Your task to perform on an android device: Open the web browser Image 0: 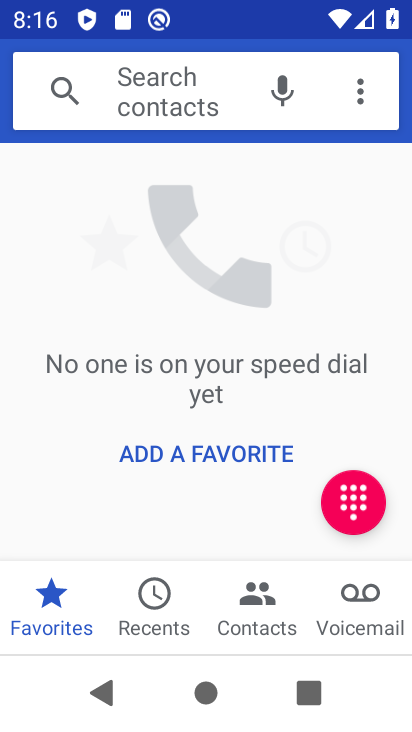
Step 0: press home button
Your task to perform on an android device: Open the web browser Image 1: 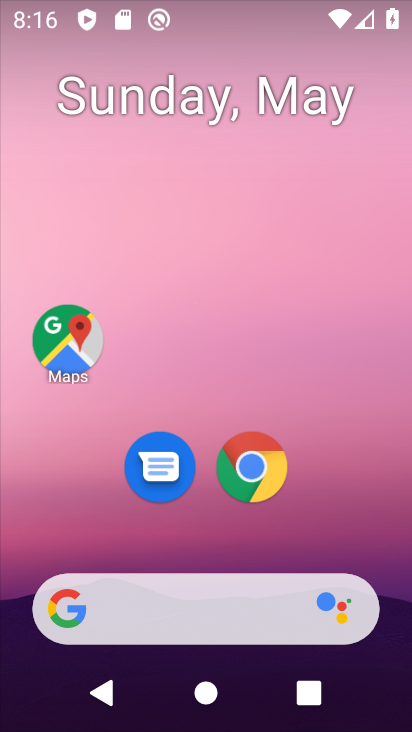
Step 1: click (253, 462)
Your task to perform on an android device: Open the web browser Image 2: 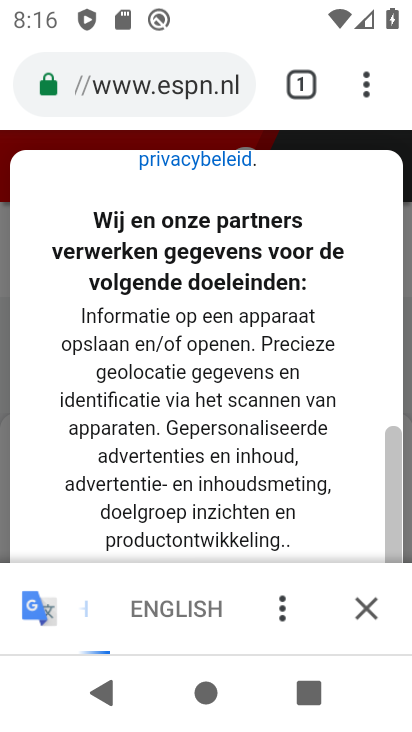
Step 2: task complete